Your task to perform on an android device: all mails in gmail Image 0: 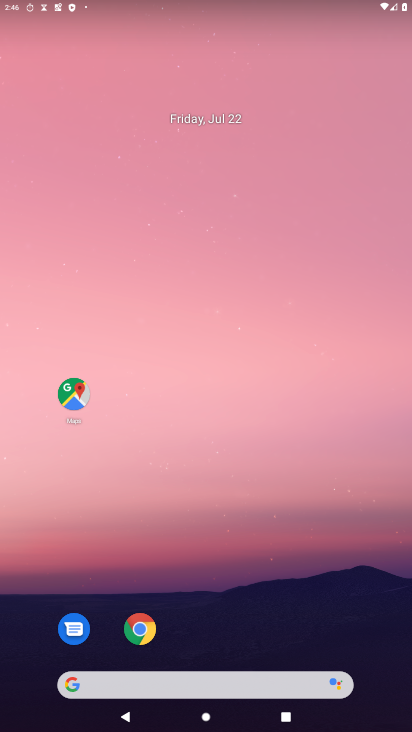
Step 0: drag from (299, 687) to (394, 467)
Your task to perform on an android device: all mails in gmail Image 1: 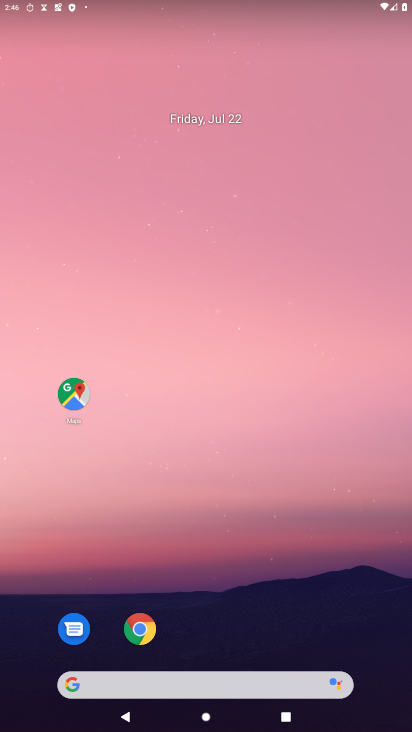
Step 1: click (127, 392)
Your task to perform on an android device: all mails in gmail Image 2: 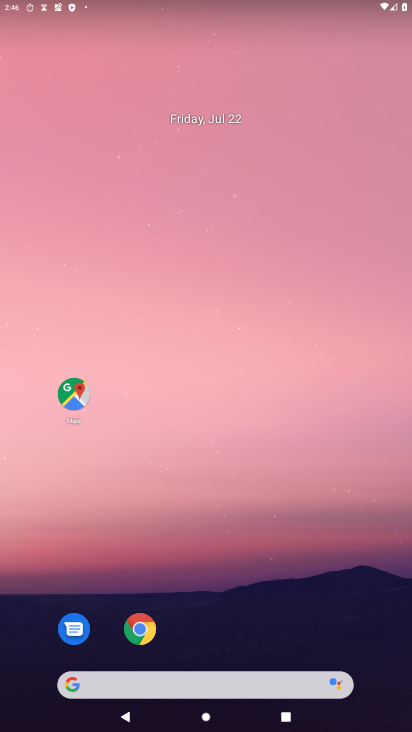
Step 2: drag from (231, 674) to (250, 3)
Your task to perform on an android device: all mails in gmail Image 3: 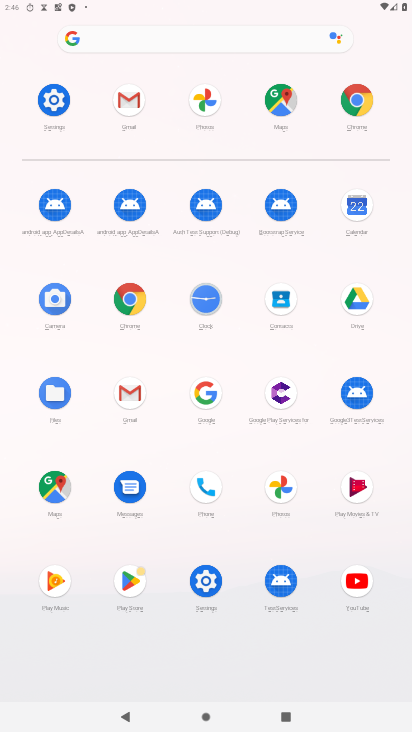
Step 3: click (133, 389)
Your task to perform on an android device: all mails in gmail Image 4: 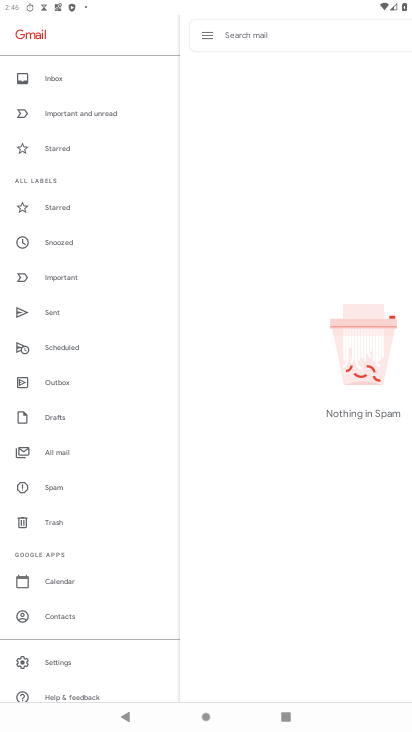
Step 4: click (78, 455)
Your task to perform on an android device: all mails in gmail Image 5: 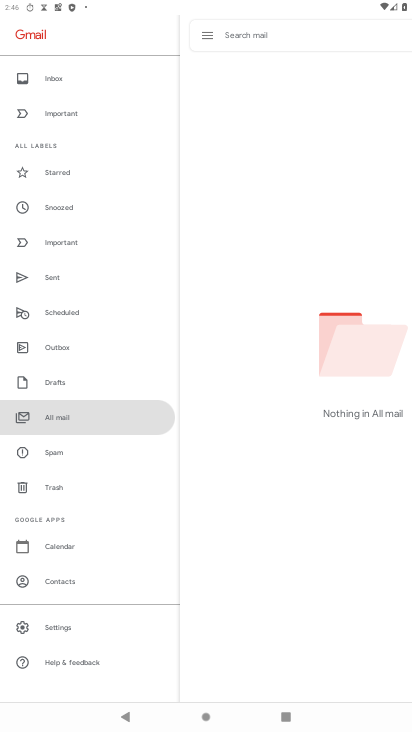
Step 5: task complete